Your task to perform on an android device: Open Google Maps and go to "Timeline" Image 0: 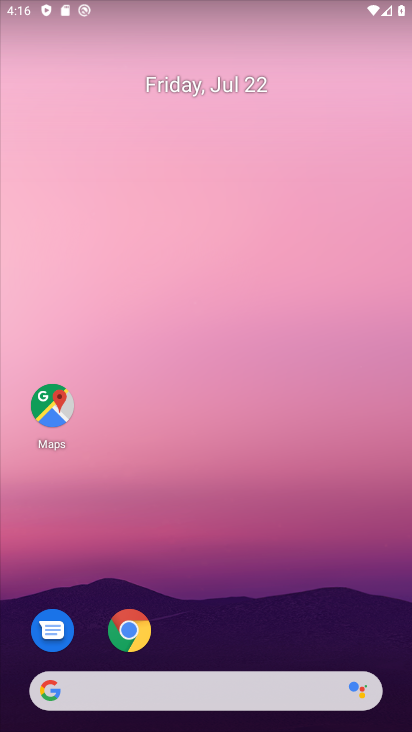
Step 0: click (56, 411)
Your task to perform on an android device: Open Google Maps and go to "Timeline" Image 1: 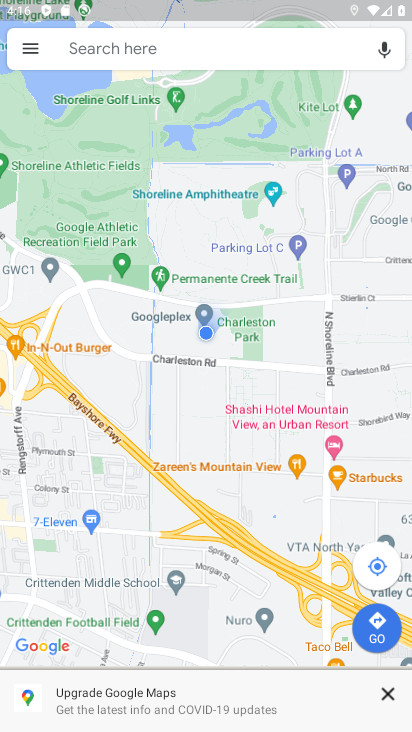
Step 1: click (35, 42)
Your task to perform on an android device: Open Google Maps and go to "Timeline" Image 2: 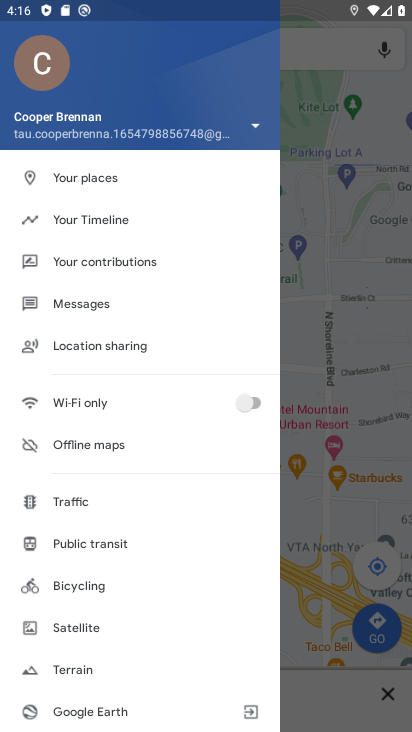
Step 2: click (85, 217)
Your task to perform on an android device: Open Google Maps and go to "Timeline" Image 3: 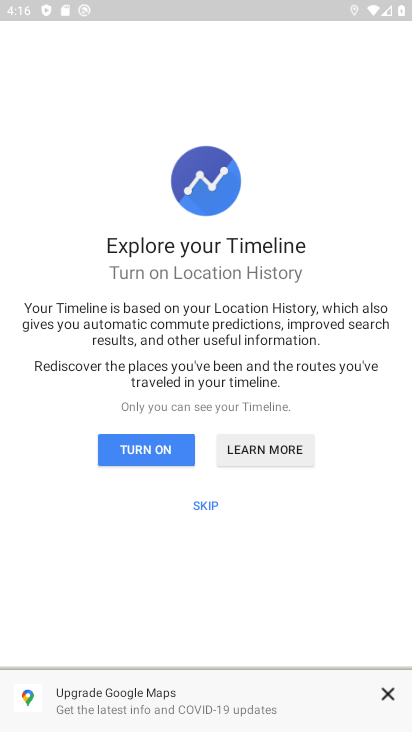
Step 3: click (144, 447)
Your task to perform on an android device: Open Google Maps and go to "Timeline" Image 4: 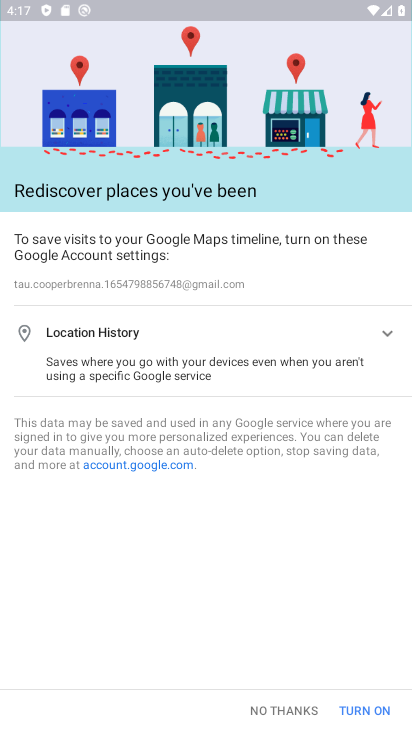
Step 4: task complete